Your task to perform on an android device: What's the weather today? Image 0: 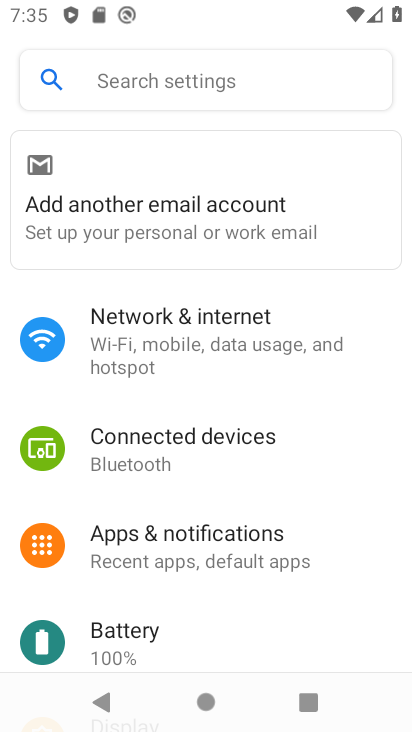
Step 0: press home button
Your task to perform on an android device: What's the weather today? Image 1: 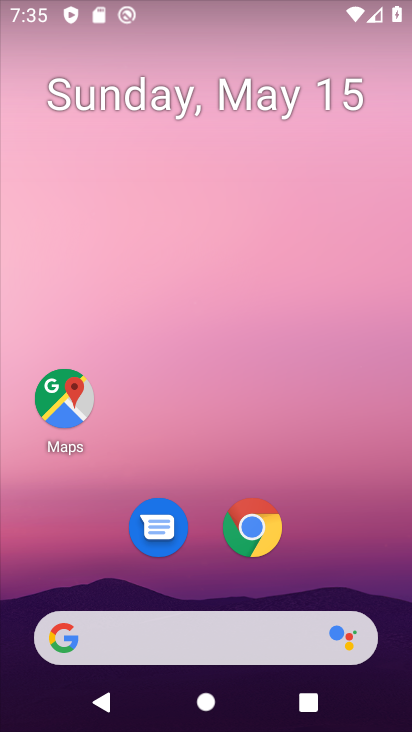
Step 1: click (203, 645)
Your task to perform on an android device: What's the weather today? Image 2: 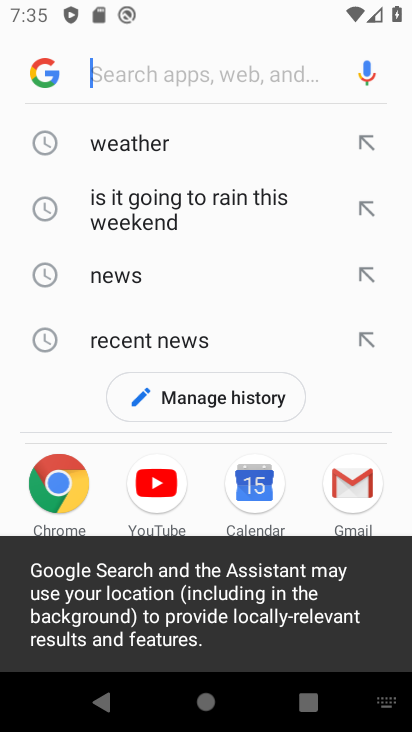
Step 2: click (124, 138)
Your task to perform on an android device: What's the weather today? Image 3: 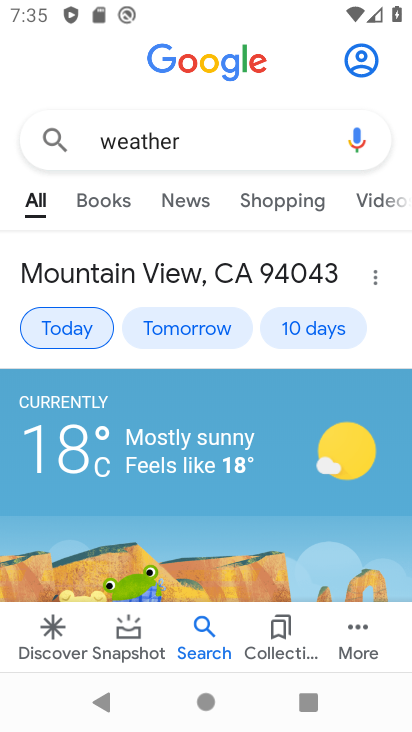
Step 3: task complete